Your task to perform on an android device: What's the weather like in New York? Image 0: 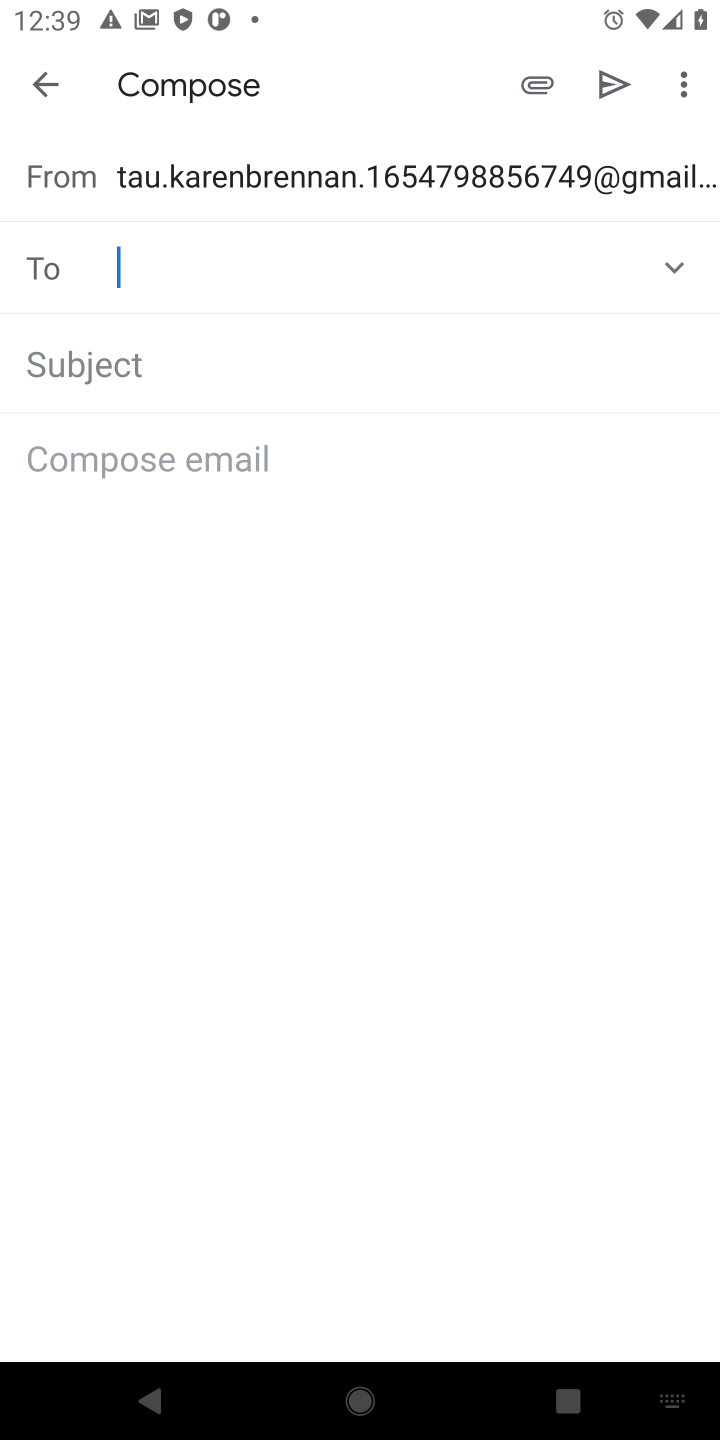
Step 0: press home button
Your task to perform on an android device: What's the weather like in New York? Image 1: 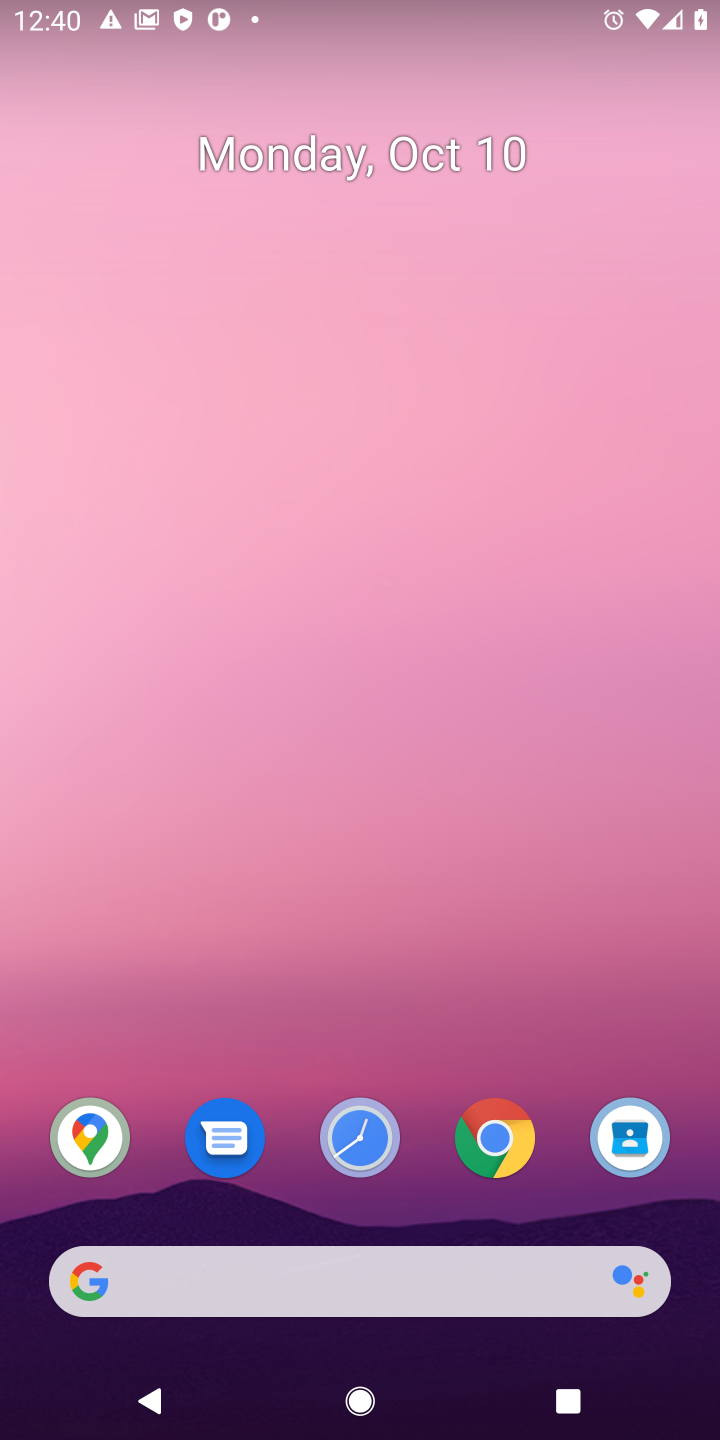
Step 1: click (491, 1148)
Your task to perform on an android device: What's the weather like in New York? Image 2: 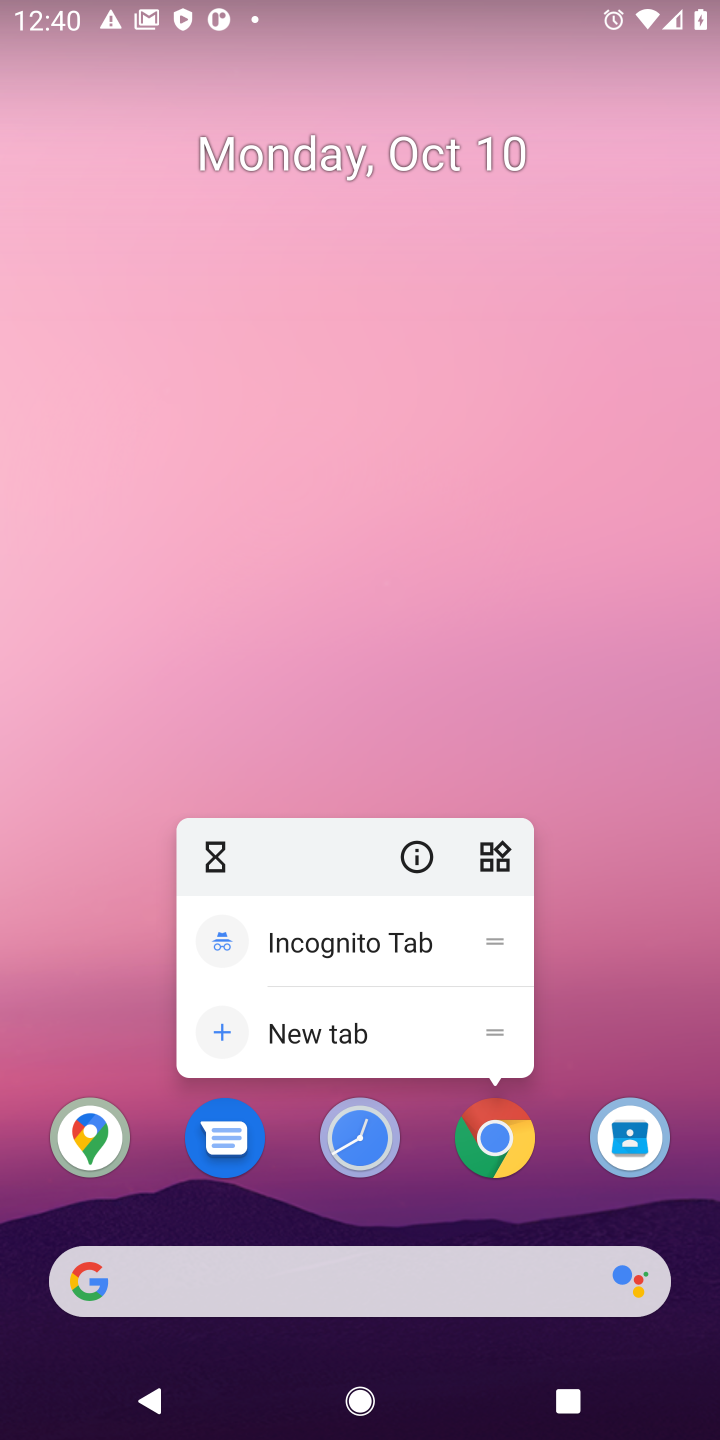
Step 2: click (503, 1146)
Your task to perform on an android device: What's the weather like in New York? Image 3: 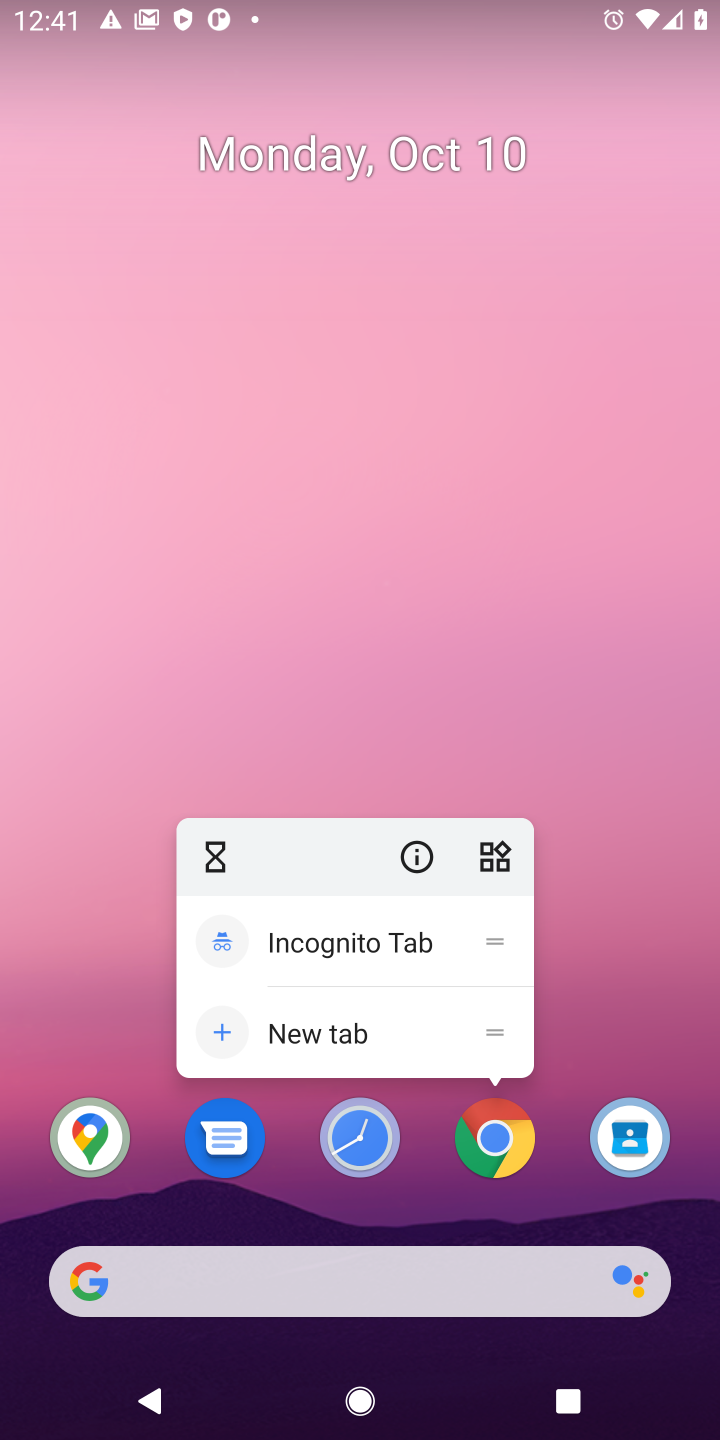
Step 3: click (480, 1153)
Your task to perform on an android device: What's the weather like in New York? Image 4: 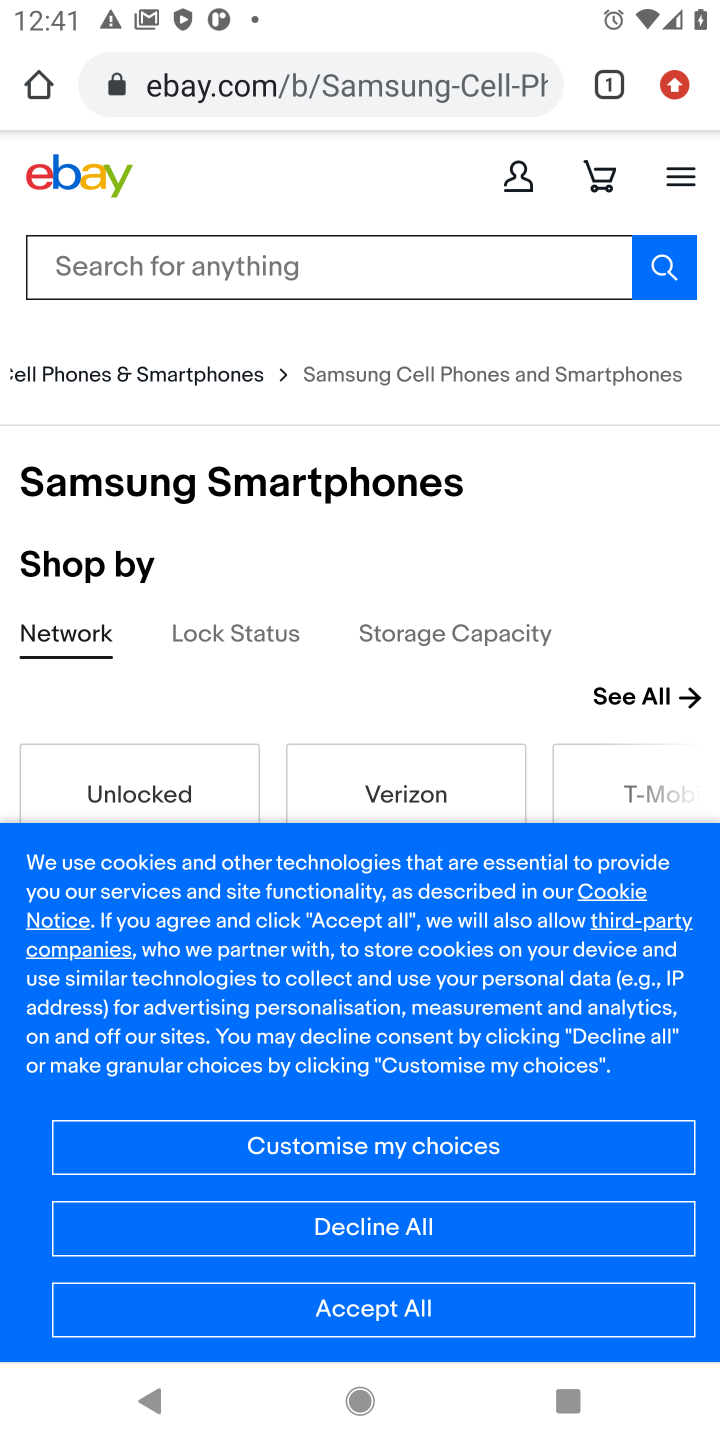
Step 4: click (325, 77)
Your task to perform on an android device: What's the weather like in New York? Image 5: 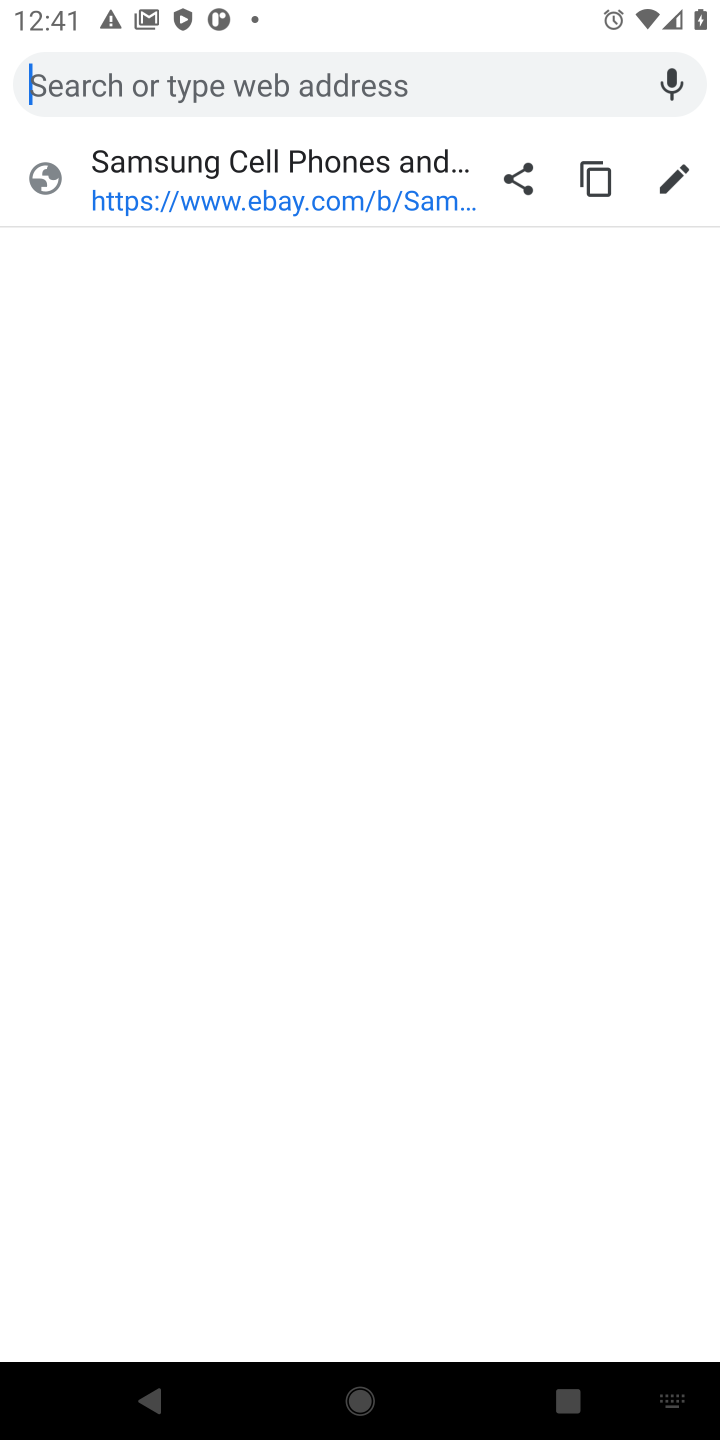
Step 5: type "What's the weather like in New York?"
Your task to perform on an android device: What's the weather like in New York? Image 6: 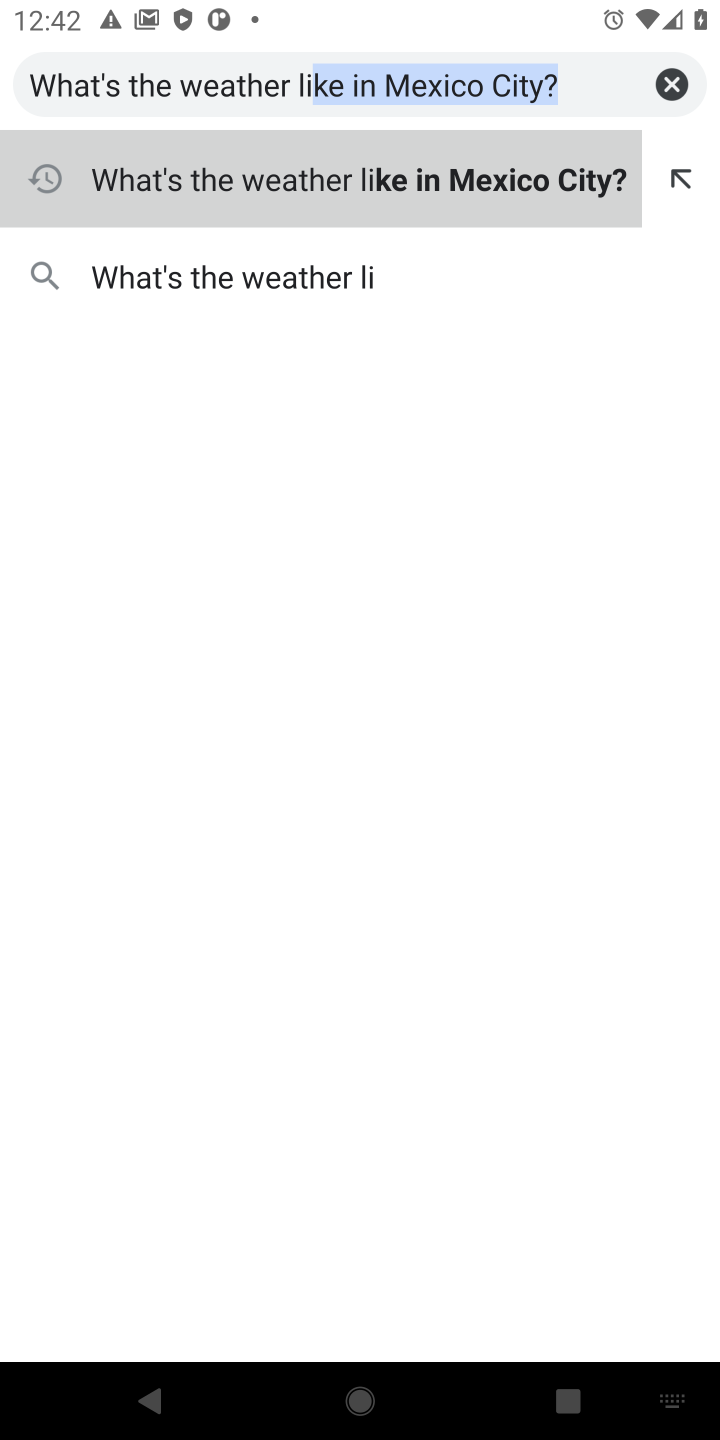
Step 6: click (668, 84)
Your task to perform on an android device: What's the weather like in New York? Image 7: 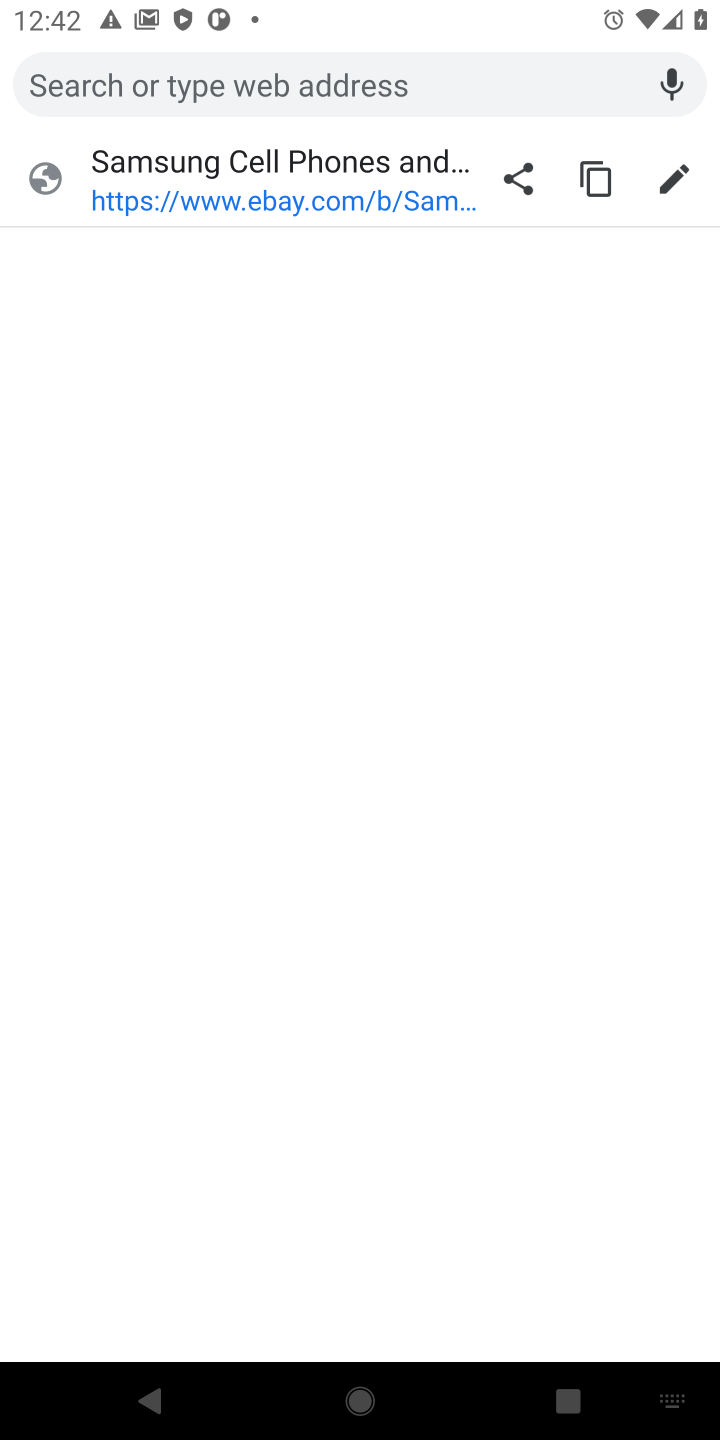
Step 7: type "What's the weather like in New York?"
Your task to perform on an android device: What's the weather like in New York? Image 8: 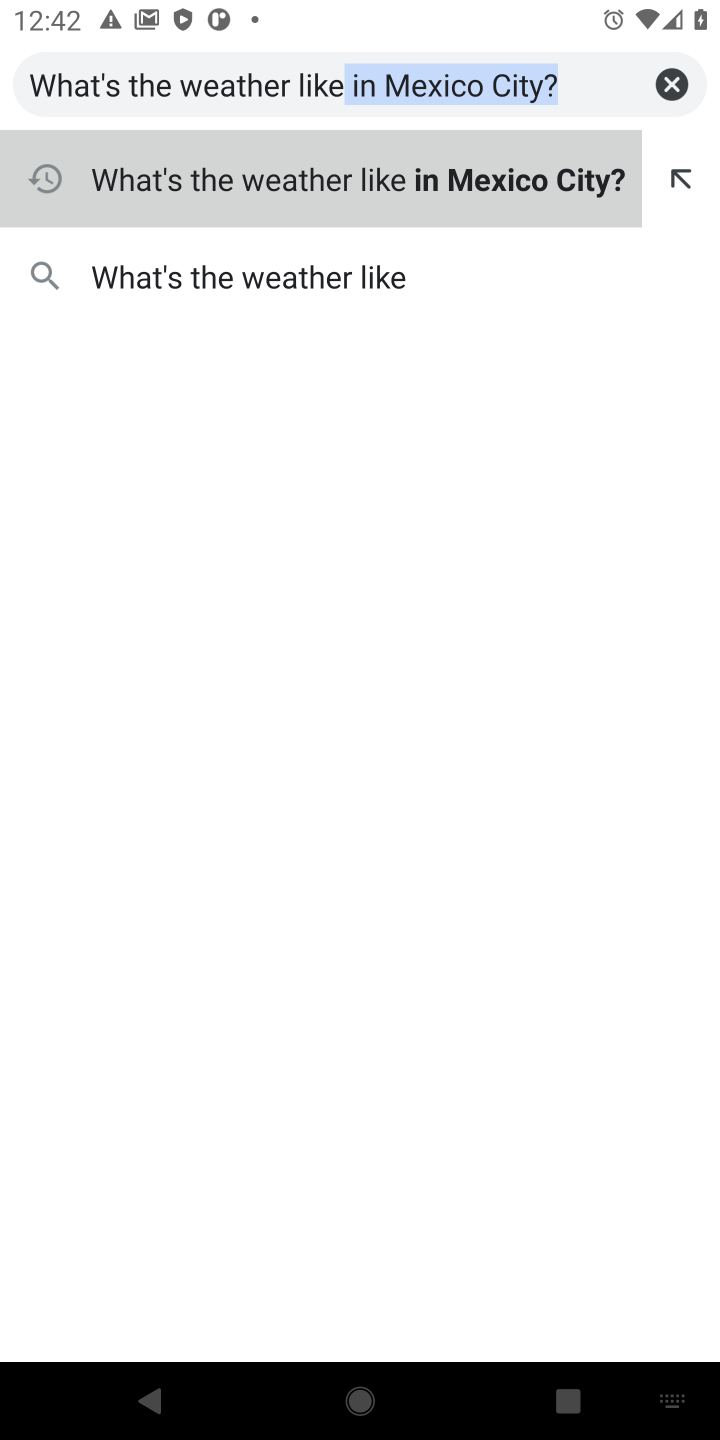
Step 8: type "in new york?"
Your task to perform on an android device: What's the weather like in New York? Image 9: 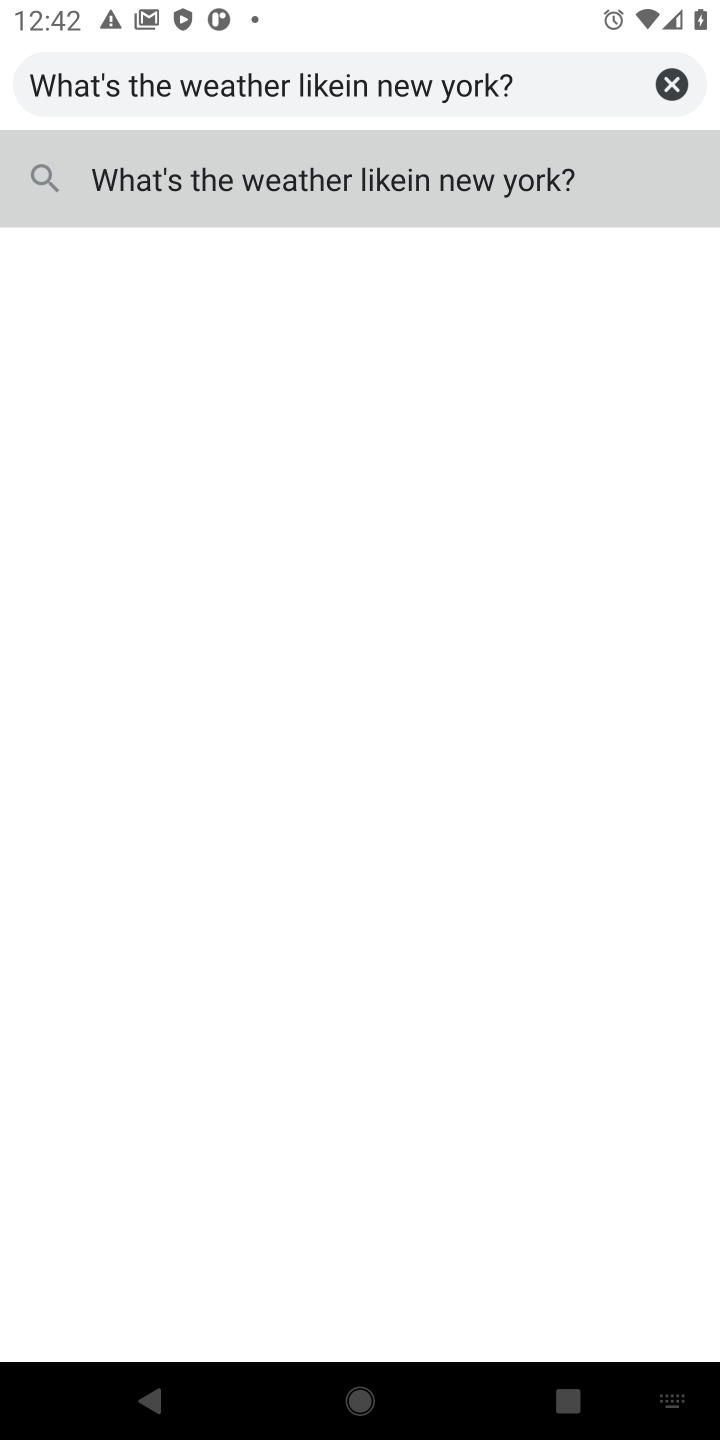
Step 9: press enter
Your task to perform on an android device: What's the weather like in New York? Image 10: 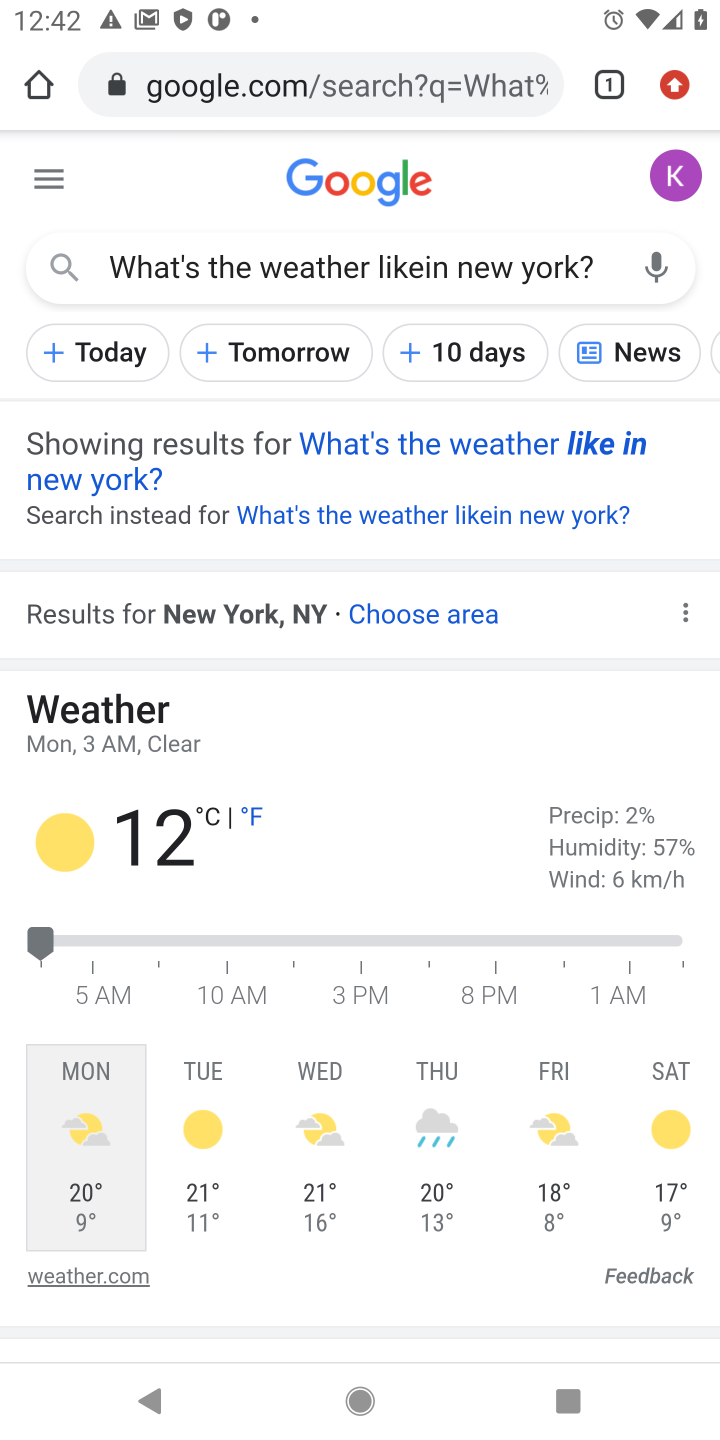
Step 10: click (567, 435)
Your task to perform on an android device: What's the weather like in New York? Image 11: 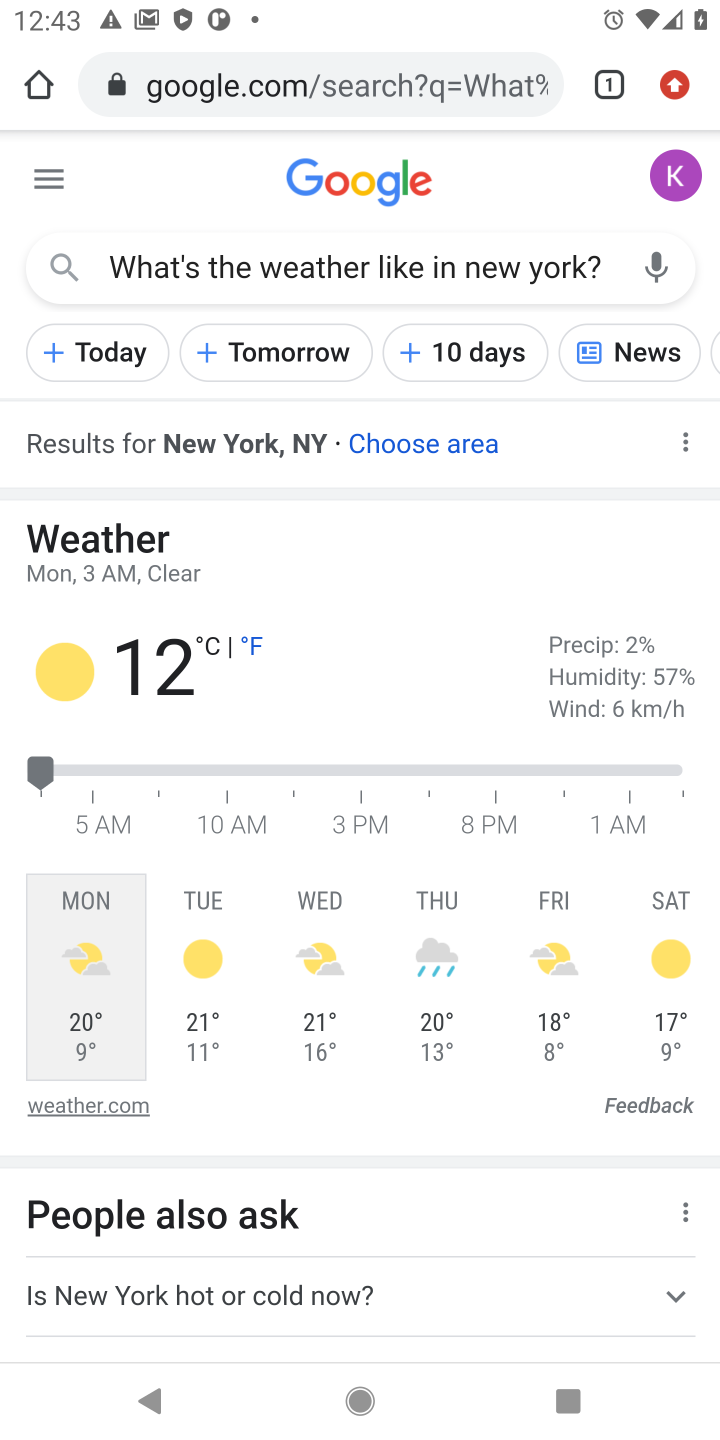
Step 11: task complete